Your task to perform on an android device: Check the news Image 0: 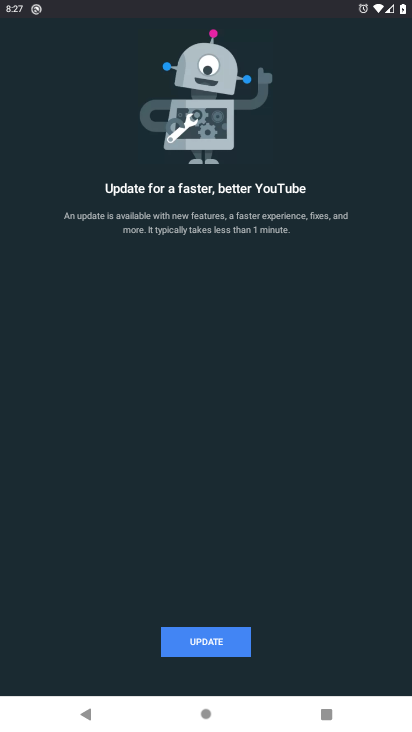
Step 0: press home button
Your task to perform on an android device: Check the news Image 1: 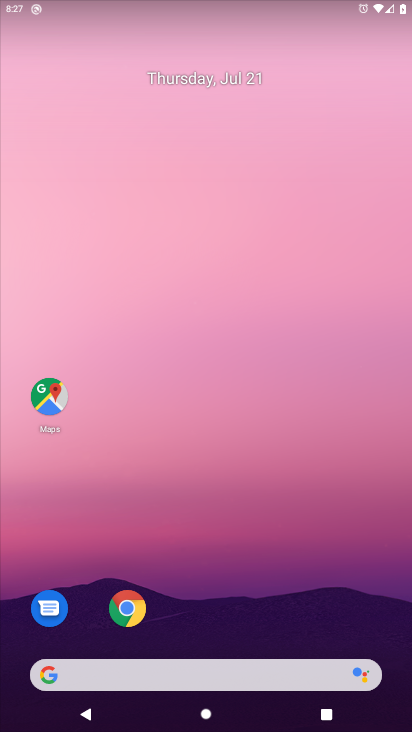
Step 1: click (128, 665)
Your task to perform on an android device: Check the news Image 2: 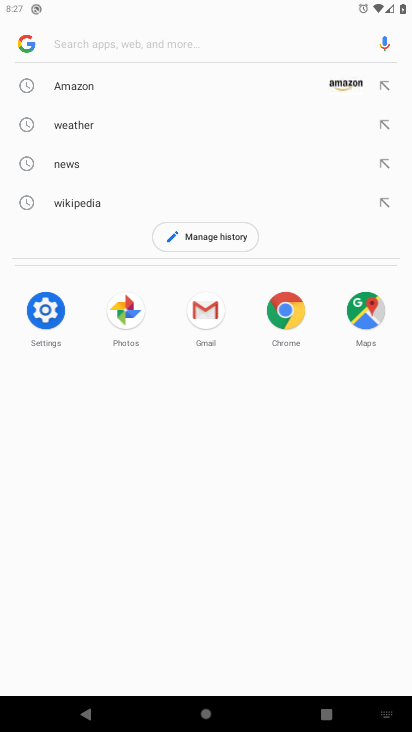
Step 2: click (75, 162)
Your task to perform on an android device: Check the news Image 3: 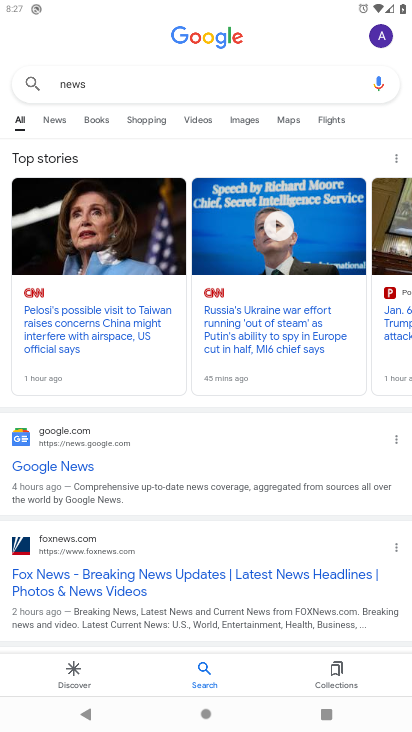
Step 3: task complete